Your task to perform on an android device: Go to network settings Image 0: 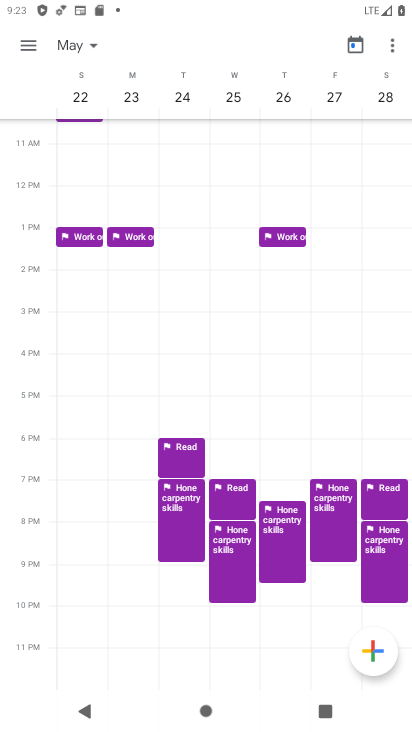
Step 0: press home button
Your task to perform on an android device: Go to network settings Image 1: 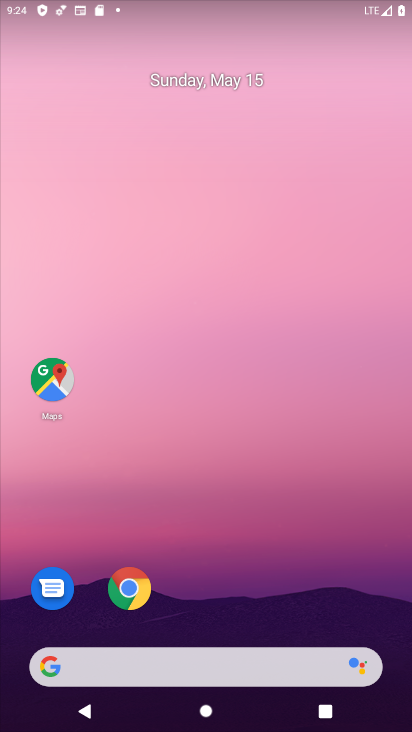
Step 1: drag from (303, 547) to (257, 62)
Your task to perform on an android device: Go to network settings Image 2: 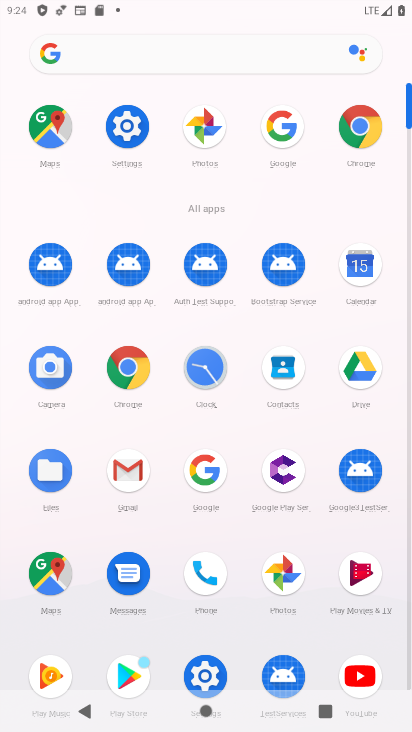
Step 2: click (132, 123)
Your task to perform on an android device: Go to network settings Image 3: 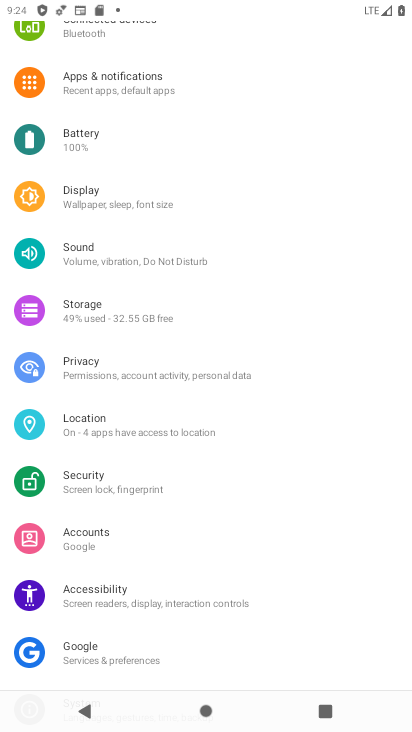
Step 3: drag from (299, 126) to (304, 489)
Your task to perform on an android device: Go to network settings Image 4: 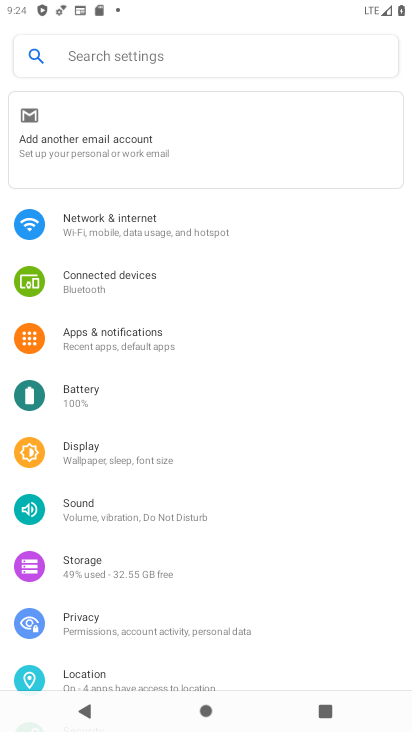
Step 4: click (152, 210)
Your task to perform on an android device: Go to network settings Image 5: 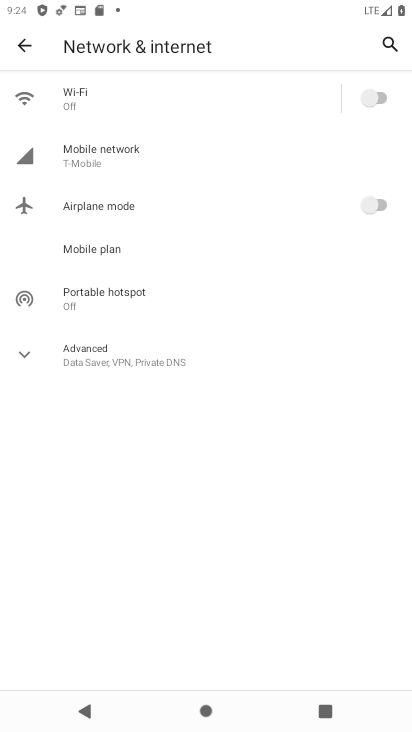
Step 5: task complete